Your task to perform on an android device: Open the web browser Image 0: 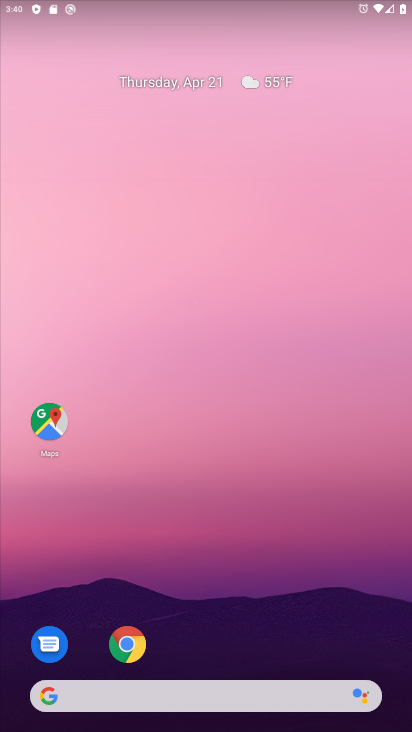
Step 0: drag from (137, 656) to (95, 104)
Your task to perform on an android device: Open the web browser Image 1: 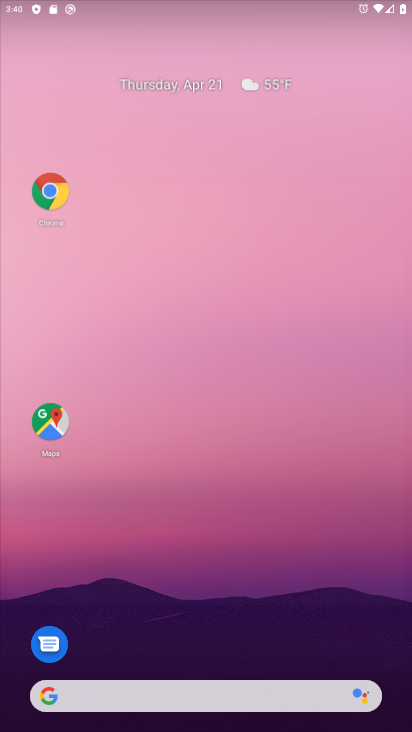
Step 1: click (224, 707)
Your task to perform on an android device: Open the web browser Image 2: 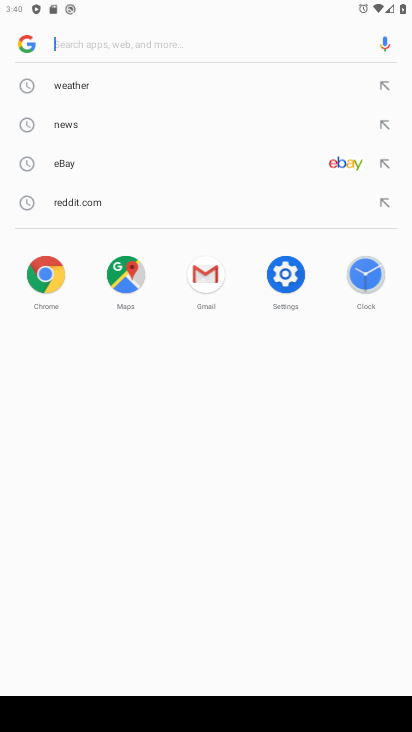
Step 2: task complete